Your task to perform on an android device: toggle sleep mode Image 0: 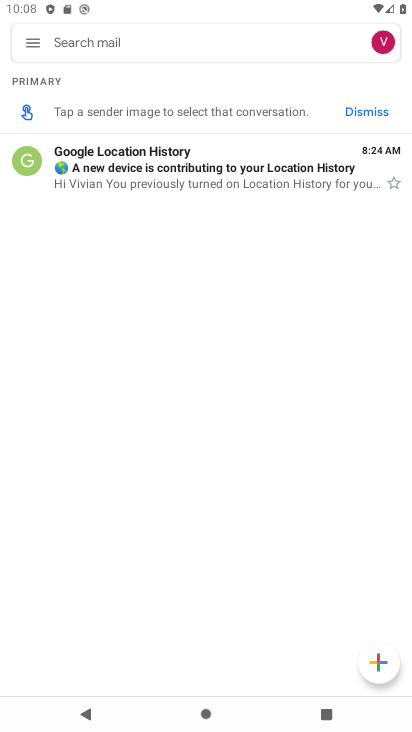
Step 0: press home button
Your task to perform on an android device: toggle sleep mode Image 1: 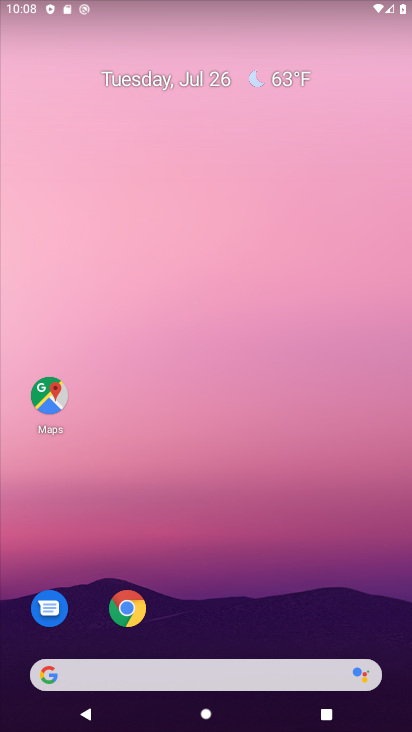
Step 1: drag from (301, 613) to (235, 219)
Your task to perform on an android device: toggle sleep mode Image 2: 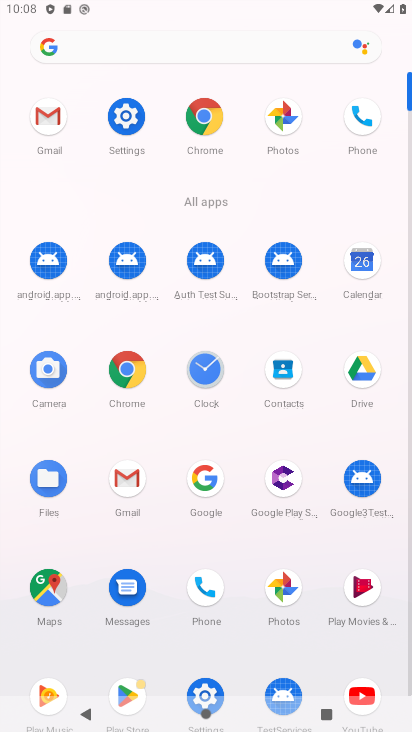
Step 2: click (121, 116)
Your task to perform on an android device: toggle sleep mode Image 3: 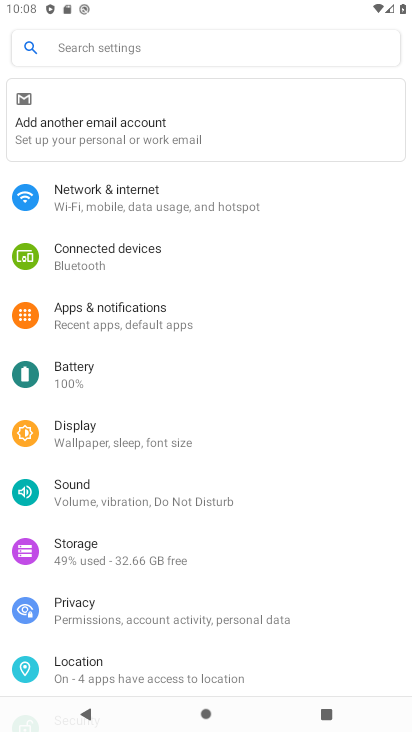
Step 3: click (99, 446)
Your task to perform on an android device: toggle sleep mode Image 4: 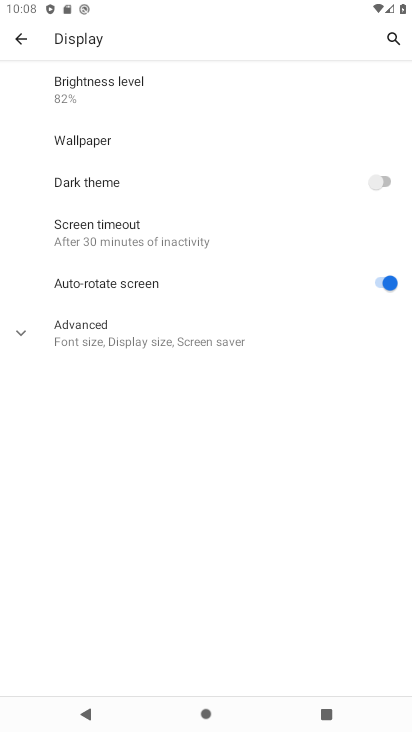
Step 4: click (30, 335)
Your task to perform on an android device: toggle sleep mode Image 5: 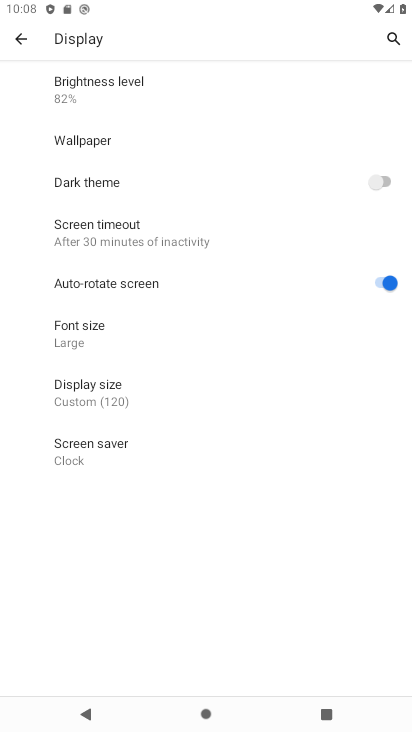
Step 5: task complete